Your task to perform on an android device: Search for "razer blade" on costco, select the first entry, add it to the cart, then select checkout. Image 0: 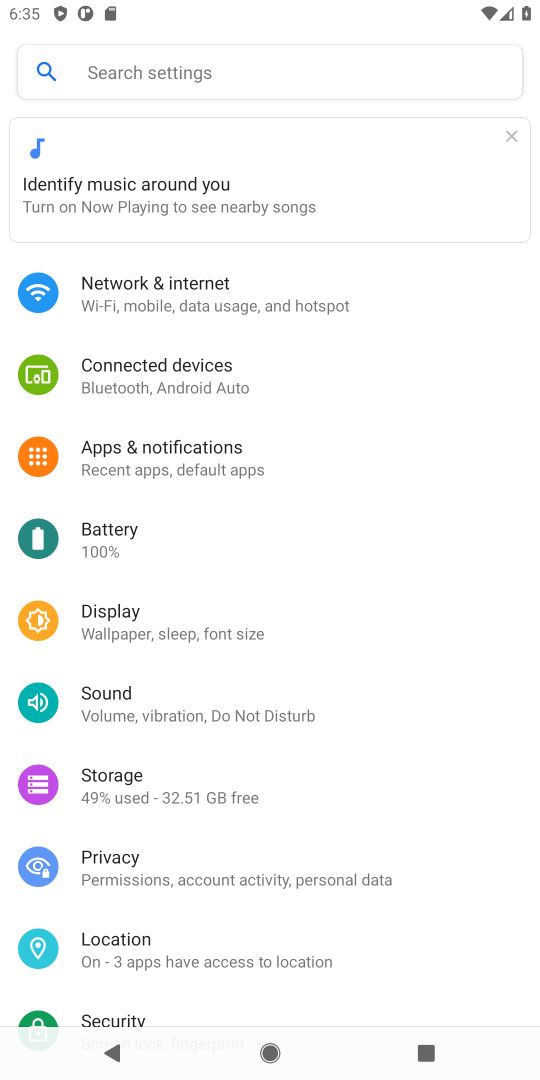
Step 0: press home button
Your task to perform on an android device: Search for "razer blade" on costco, select the first entry, add it to the cart, then select checkout. Image 1: 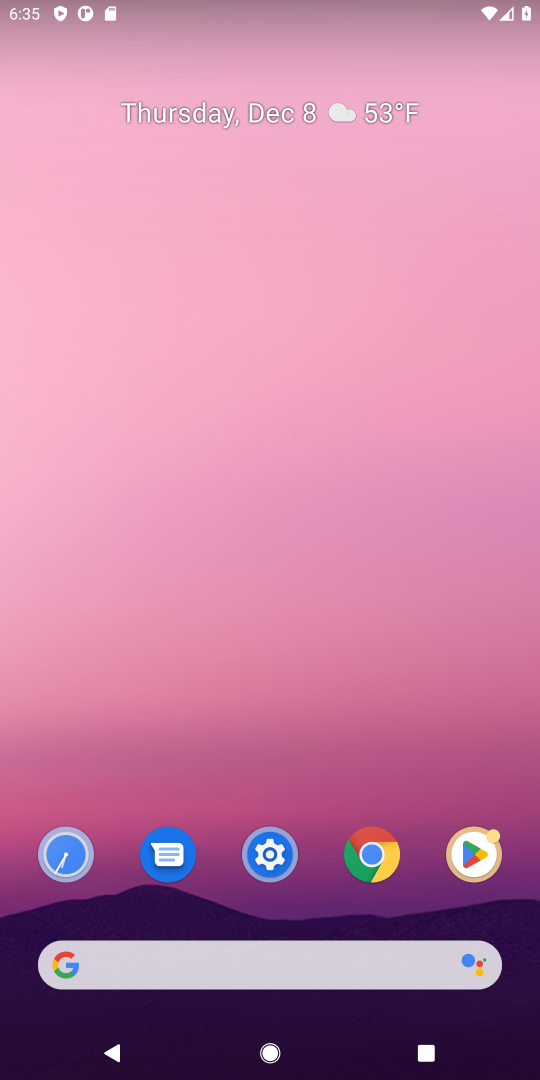
Step 1: click (95, 975)
Your task to perform on an android device: Search for "razer blade" on costco, select the first entry, add it to the cart, then select checkout. Image 2: 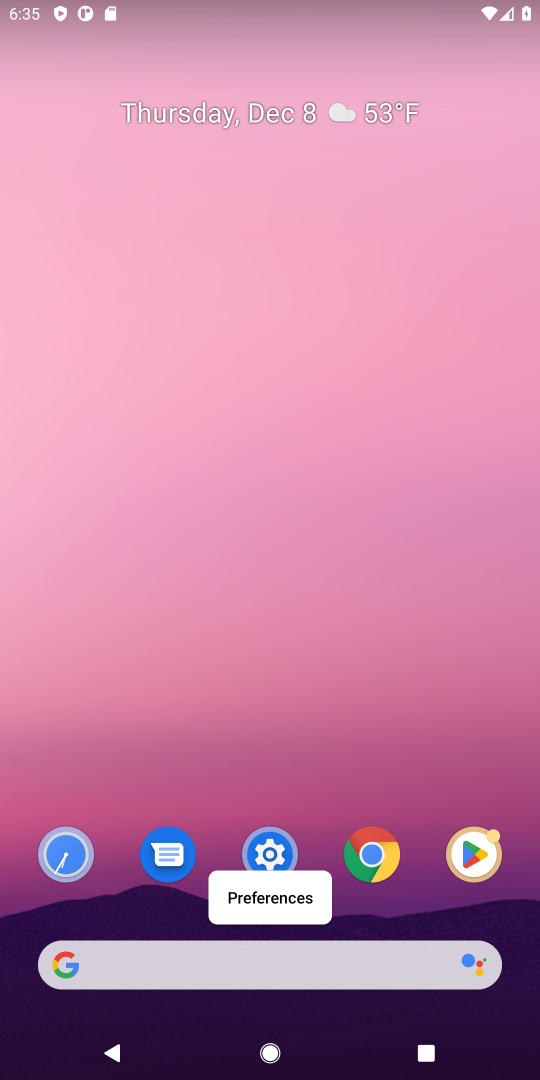
Step 2: click (97, 964)
Your task to perform on an android device: Search for "razer blade" on costco, select the first entry, add it to the cart, then select checkout. Image 3: 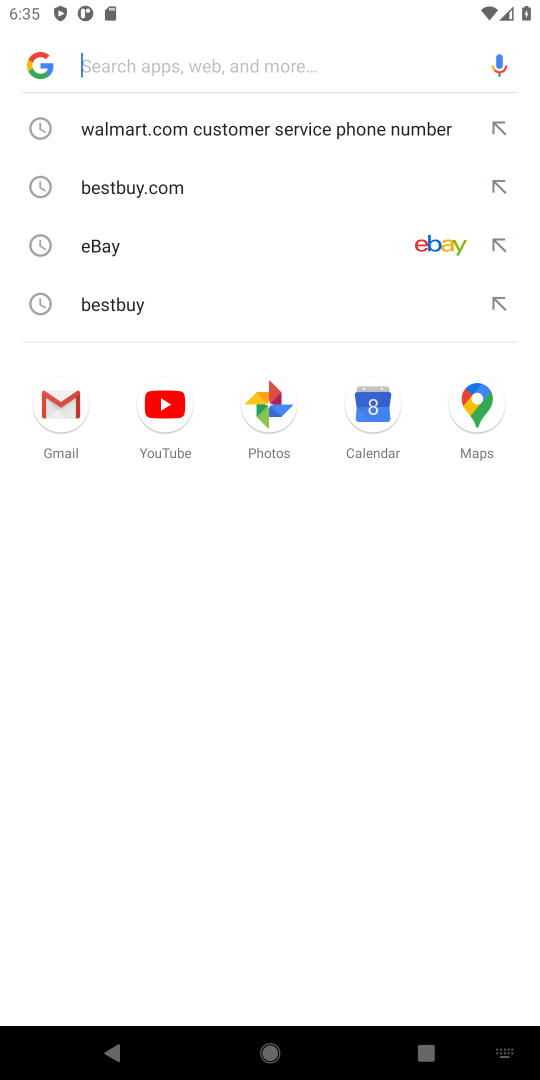
Step 3: type "costco"
Your task to perform on an android device: Search for "razer blade" on costco, select the first entry, add it to the cart, then select checkout. Image 4: 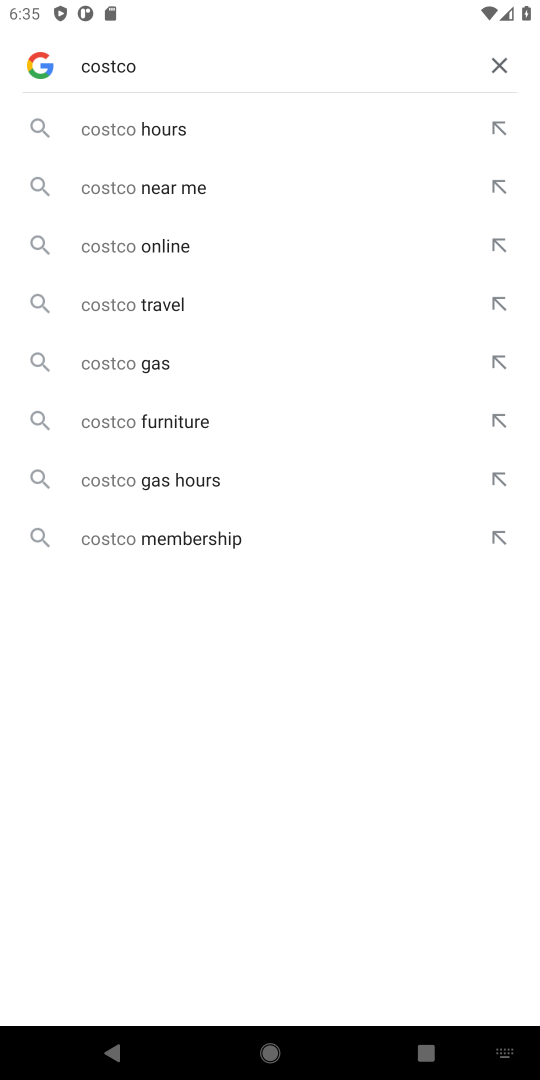
Step 4: press enter
Your task to perform on an android device: Search for "razer blade" on costco, select the first entry, add it to the cart, then select checkout. Image 5: 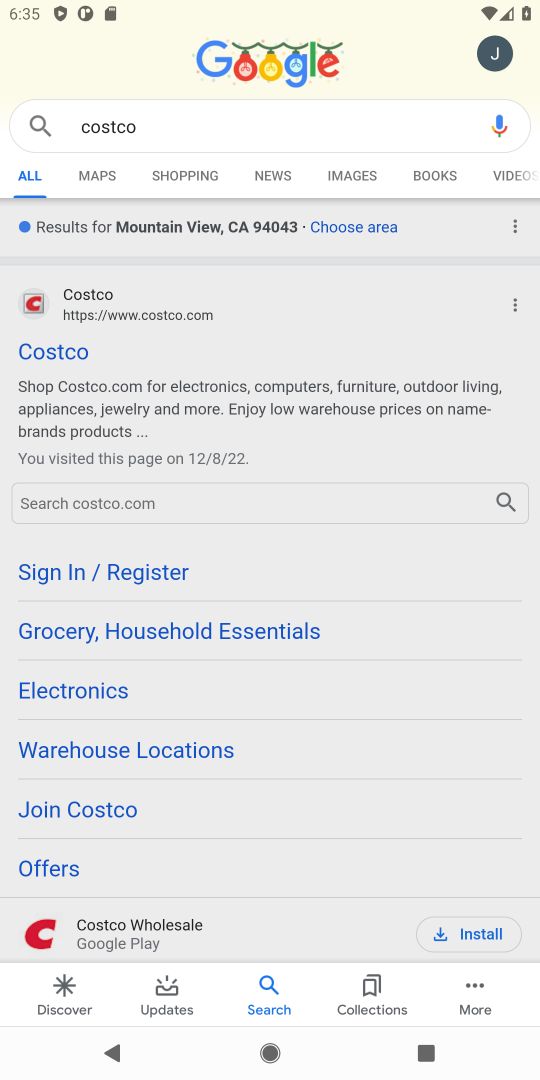
Step 5: click (54, 346)
Your task to perform on an android device: Search for "razer blade" on costco, select the first entry, add it to the cart, then select checkout. Image 6: 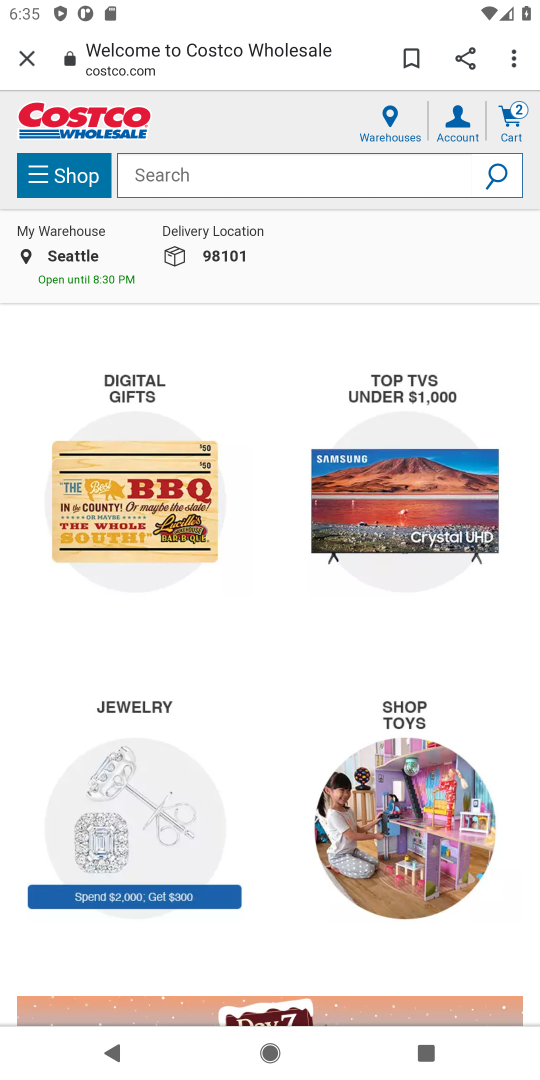
Step 6: click (202, 176)
Your task to perform on an android device: Search for "razer blade" on costco, select the first entry, add it to the cart, then select checkout. Image 7: 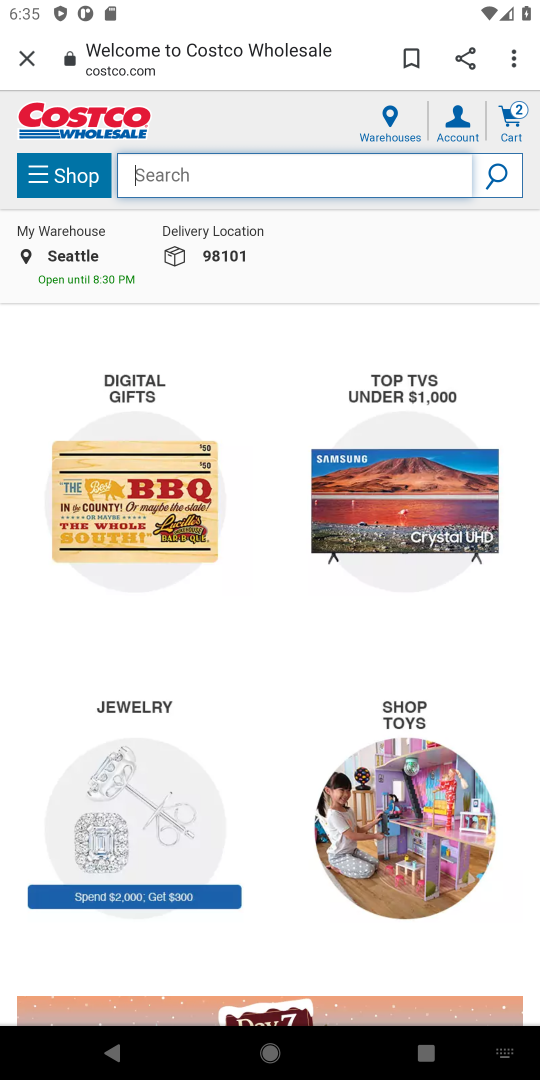
Step 7: type "razer blade"
Your task to perform on an android device: Search for "razer blade" on costco, select the first entry, add it to the cart, then select checkout. Image 8: 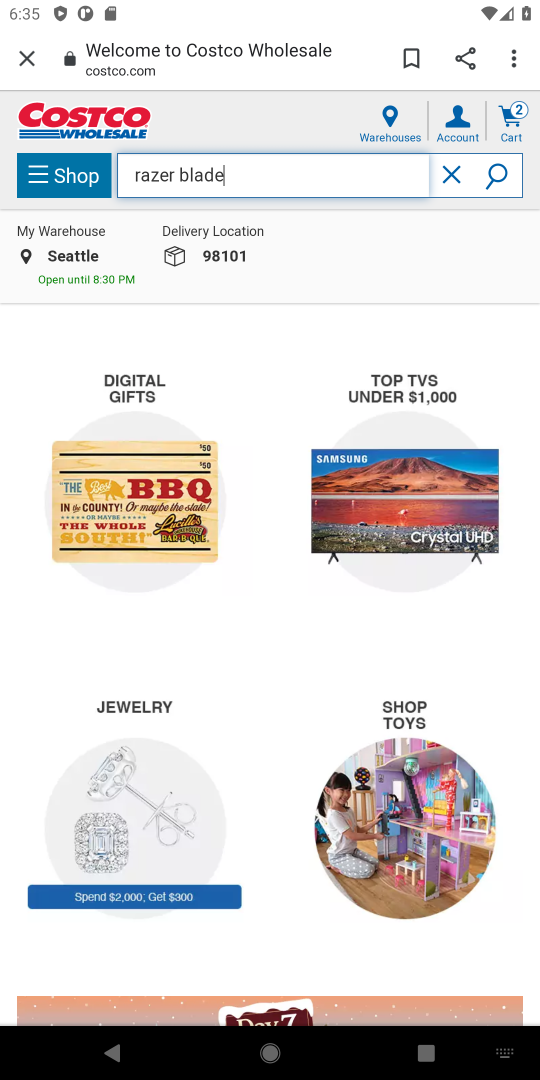
Step 8: press enter
Your task to perform on an android device: Search for "razer blade" on costco, select the first entry, add it to the cart, then select checkout. Image 9: 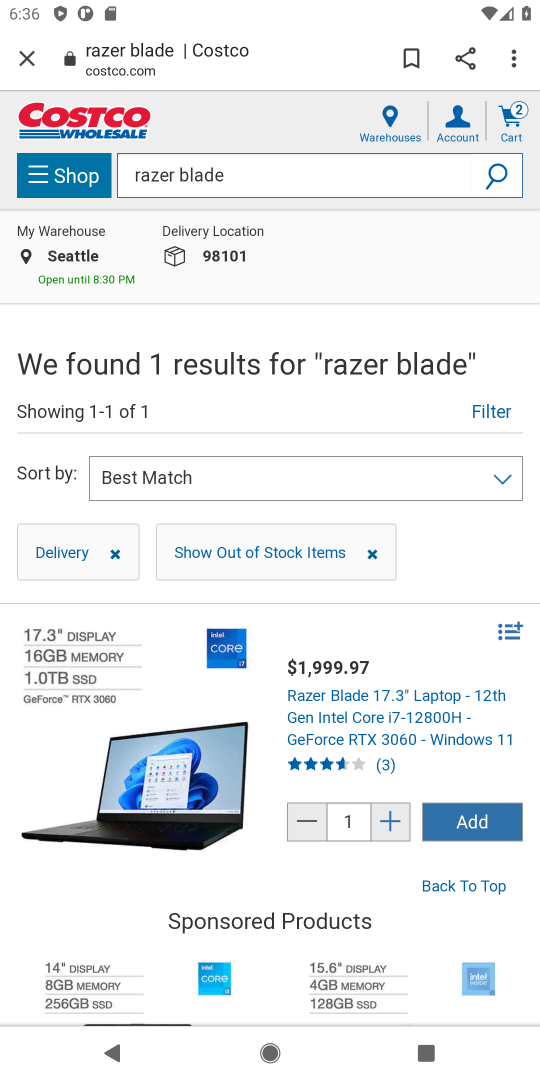
Step 9: click (466, 821)
Your task to perform on an android device: Search for "razer blade" on costco, select the first entry, add it to the cart, then select checkout. Image 10: 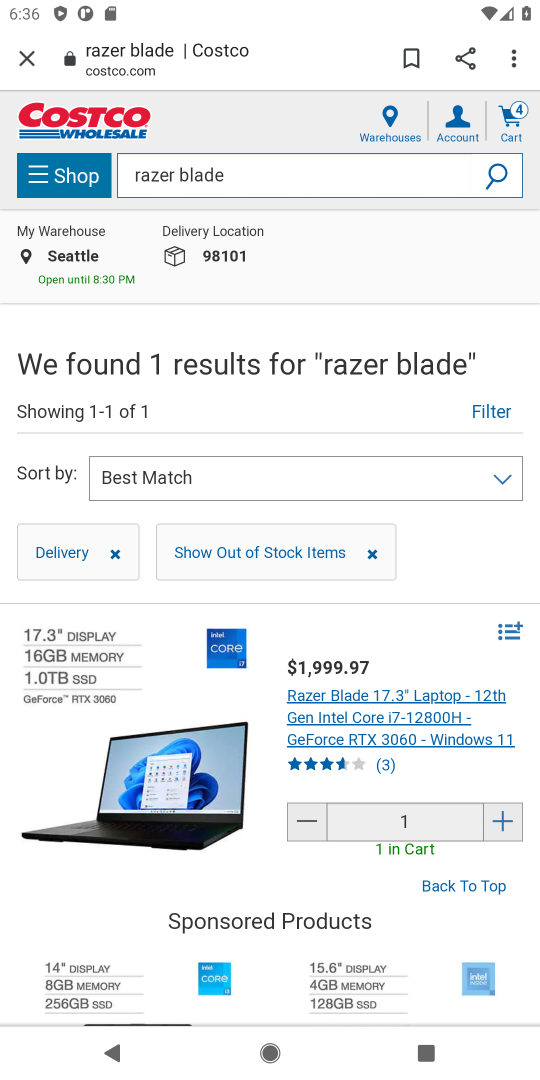
Step 10: click (513, 120)
Your task to perform on an android device: Search for "razer blade" on costco, select the first entry, add it to the cart, then select checkout. Image 11: 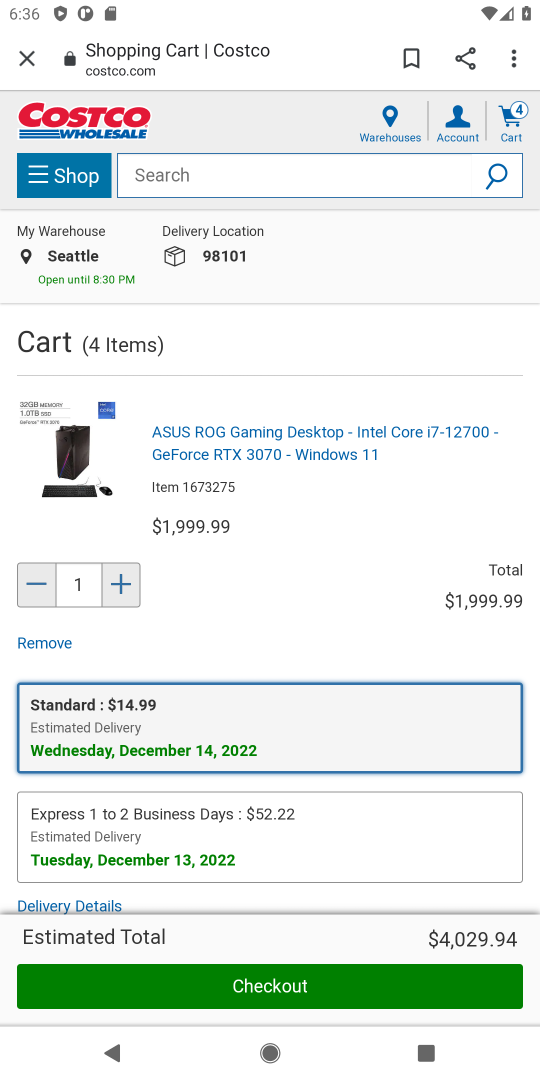
Step 11: click (263, 991)
Your task to perform on an android device: Search for "razer blade" on costco, select the first entry, add it to the cart, then select checkout. Image 12: 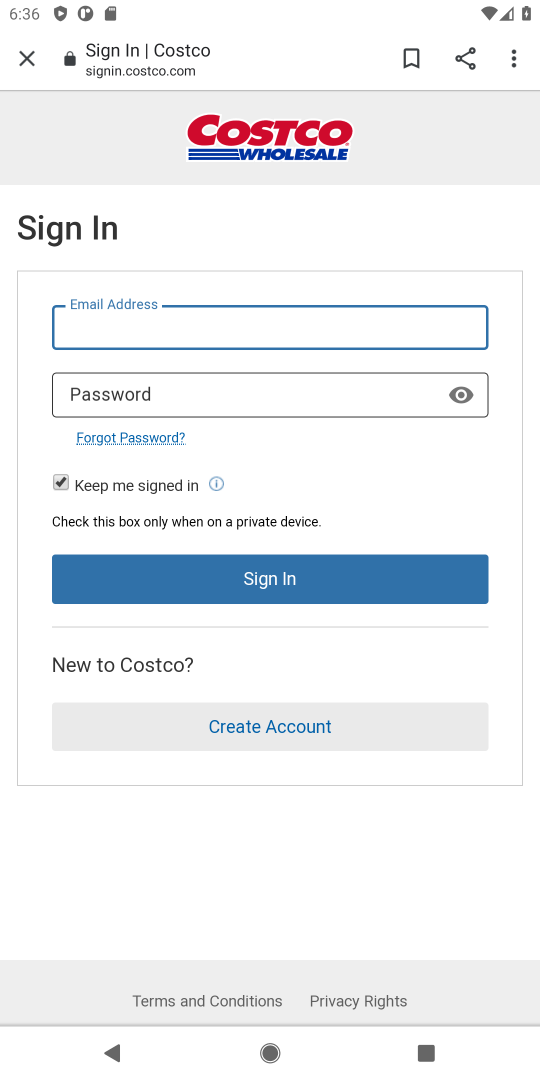
Step 12: task complete